Your task to perform on an android device: Go to display settings Image 0: 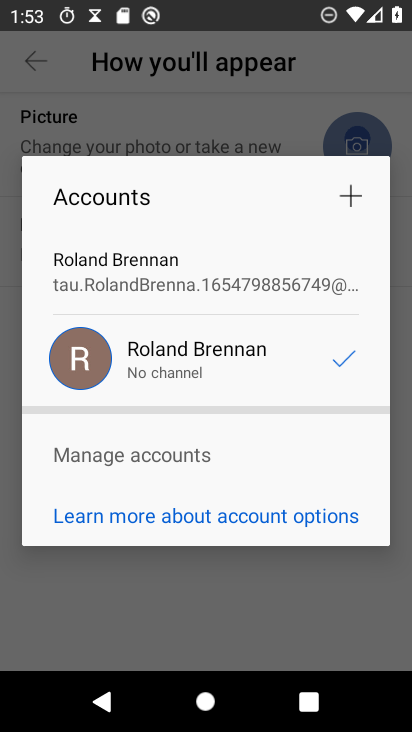
Step 0: press home button
Your task to perform on an android device: Go to display settings Image 1: 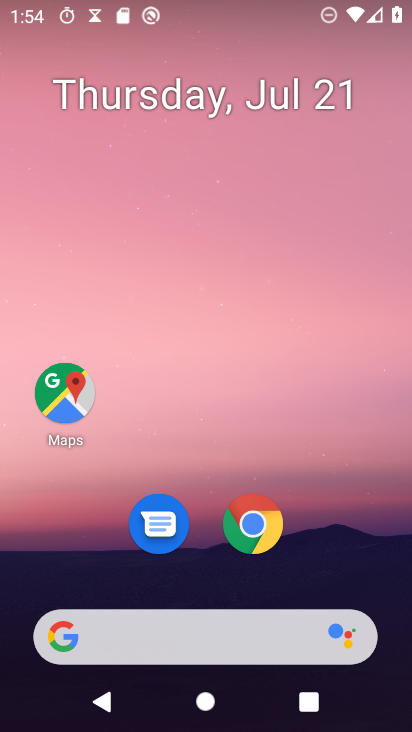
Step 1: drag from (238, 628) to (296, 293)
Your task to perform on an android device: Go to display settings Image 2: 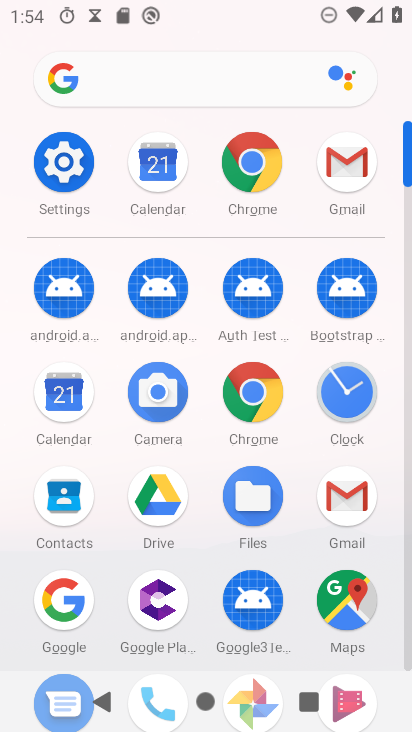
Step 2: click (63, 162)
Your task to perform on an android device: Go to display settings Image 3: 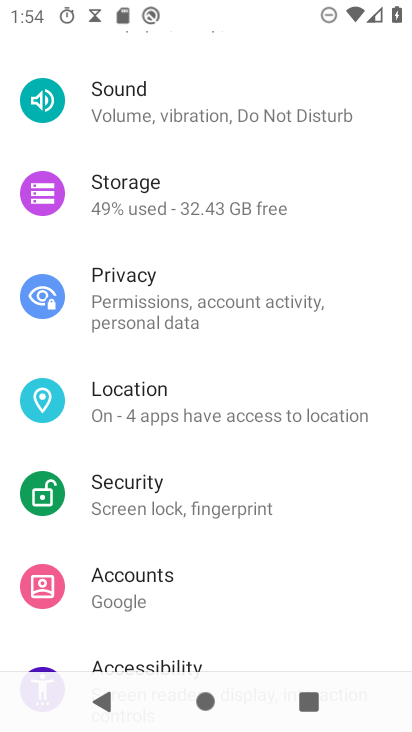
Step 3: drag from (229, 590) to (300, 271)
Your task to perform on an android device: Go to display settings Image 4: 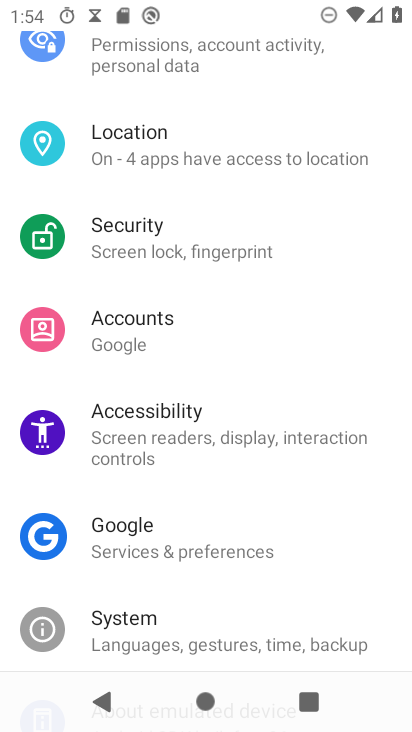
Step 4: drag from (273, 294) to (183, 697)
Your task to perform on an android device: Go to display settings Image 5: 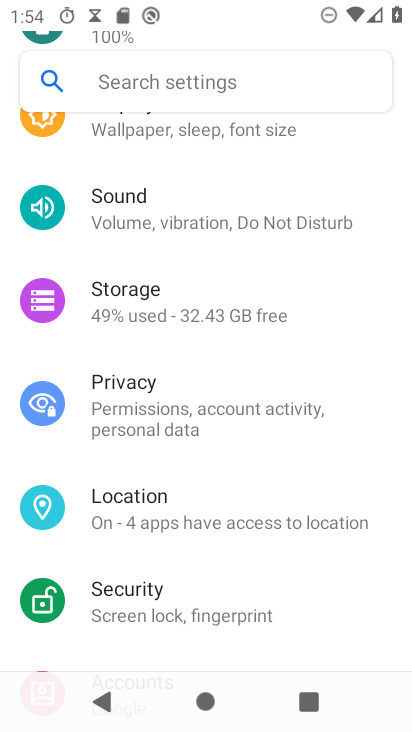
Step 5: drag from (251, 279) to (160, 656)
Your task to perform on an android device: Go to display settings Image 6: 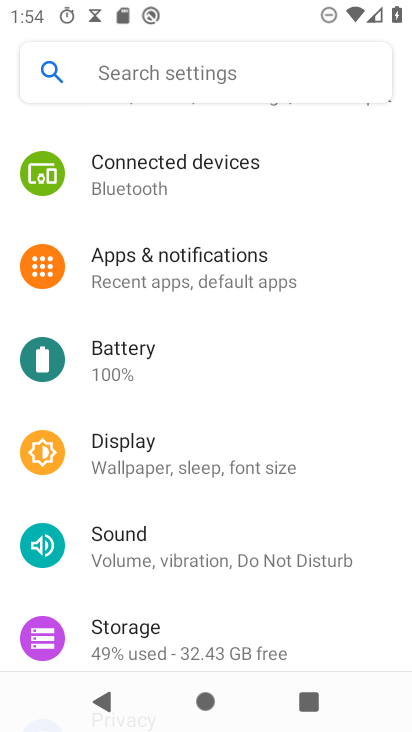
Step 6: click (142, 462)
Your task to perform on an android device: Go to display settings Image 7: 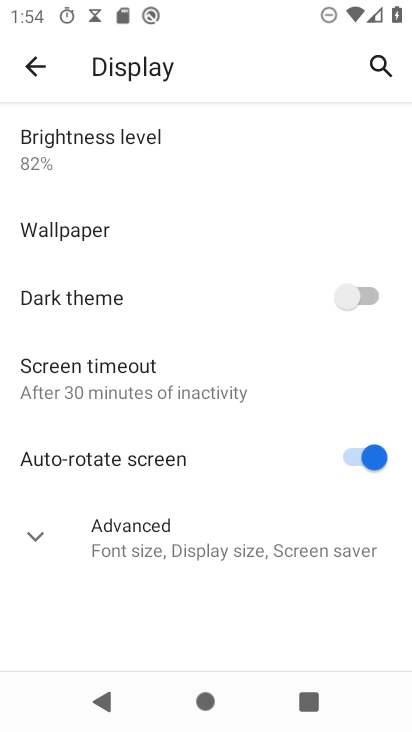
Step 7: task complete